Your task to perform on an android device: Open calendar and show me the fourth week of next month Image 0: 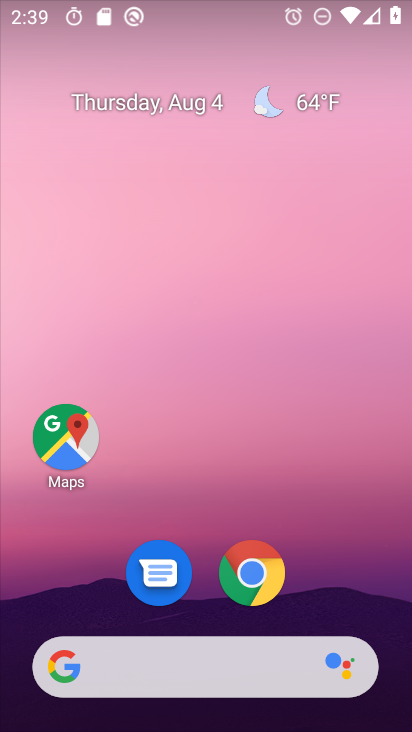
Step 0: drag from (327, 534) to (392, 0)
Your task to perform on an android device: Open calendar and show me the fourth week of next month Image 1: 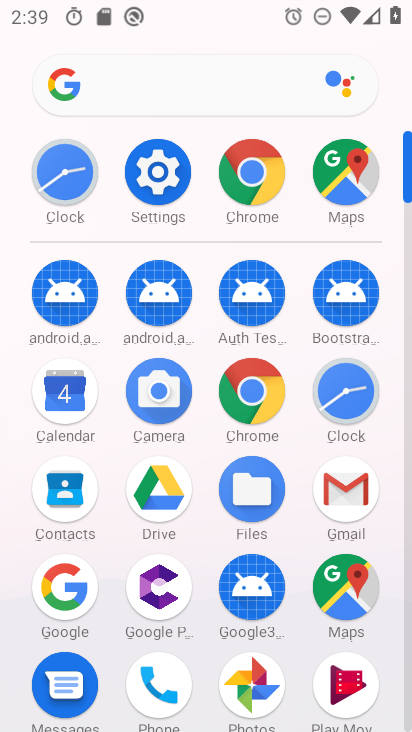
Step 1: click (50, 395)
Your task to perform on an android device: Open calendar and show me the fourth week of next month Image 2: 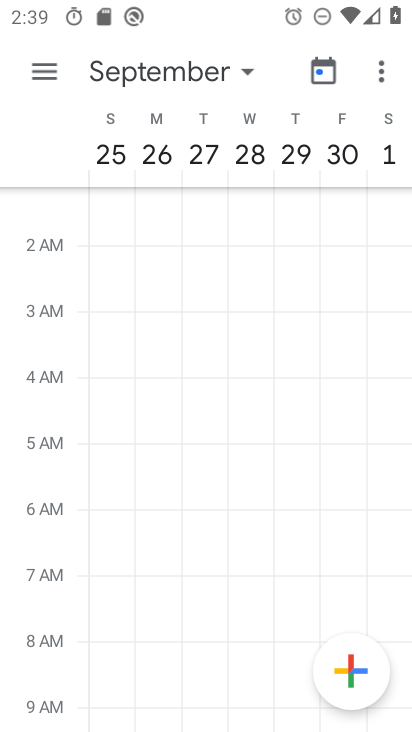
Step 2: task complete